Your task to perform on an android device: open app "Truecaller" (install if not already installed) and go to login screen Image 0: 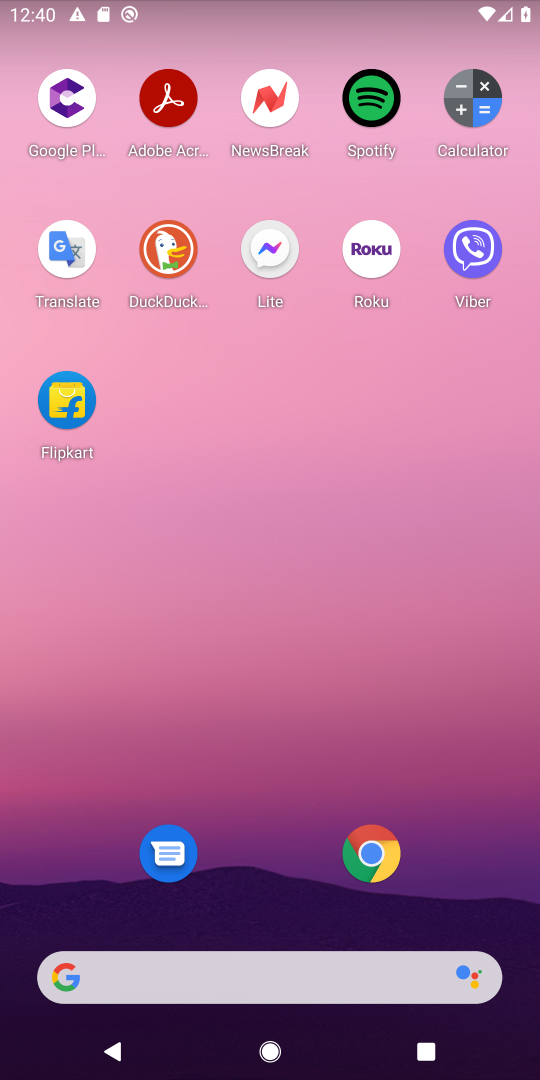
Step 0: drag from (274, 864) to (414, 166)
Your task to perform on an android device: open app "Truecaller" (install if not already installed) and go to login screen Image 1: 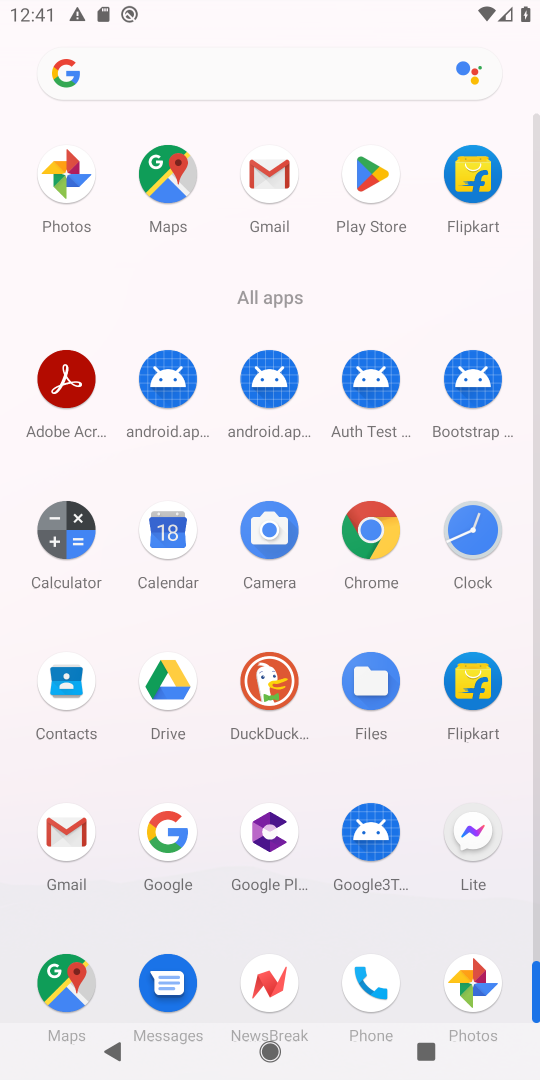
Step 1: click (373, 182)
Your task to perform on an android device: open app "Truecaller" (install if not already installed) and go to login screen Image 2: 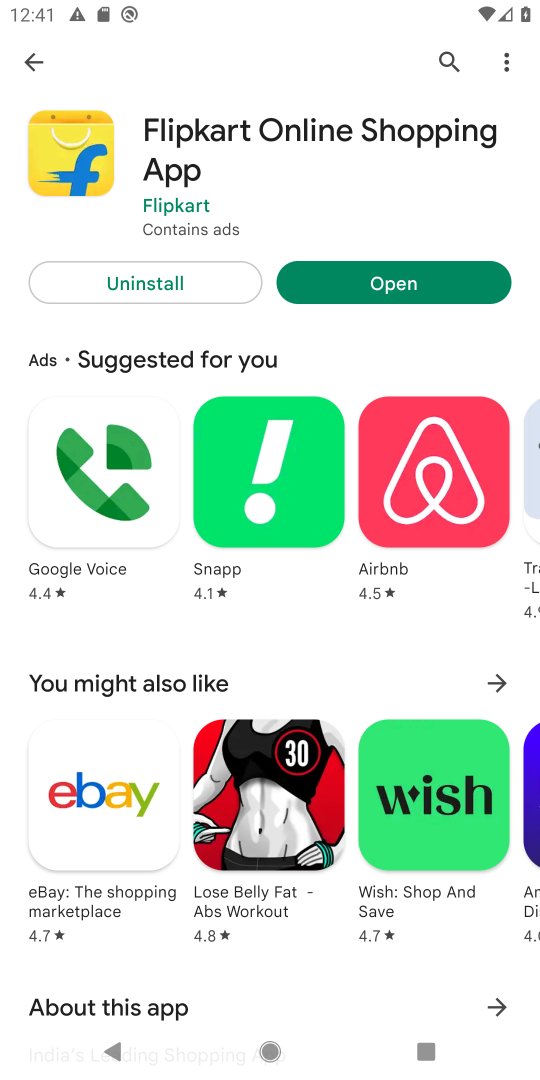
Step 2: click (40, 68)
Your task to perform on an android device: open app "Truecaller" (install if not already installed) and go to login screen Image 3: 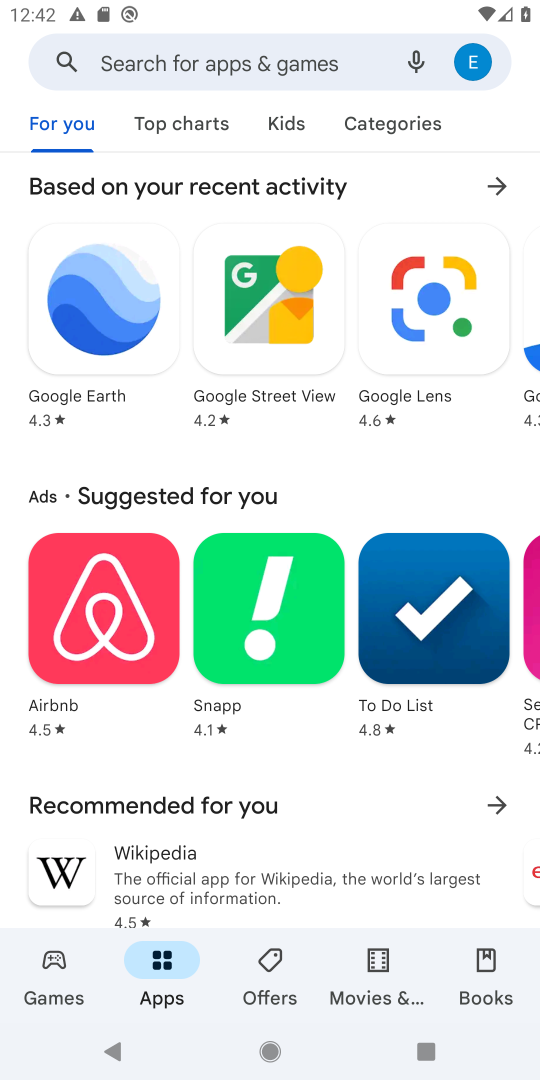
Step 3: click (130, 70)
Your task to perform on an android device: open app "Truecaller" (install if not already installed) and go to login screen Image 4: 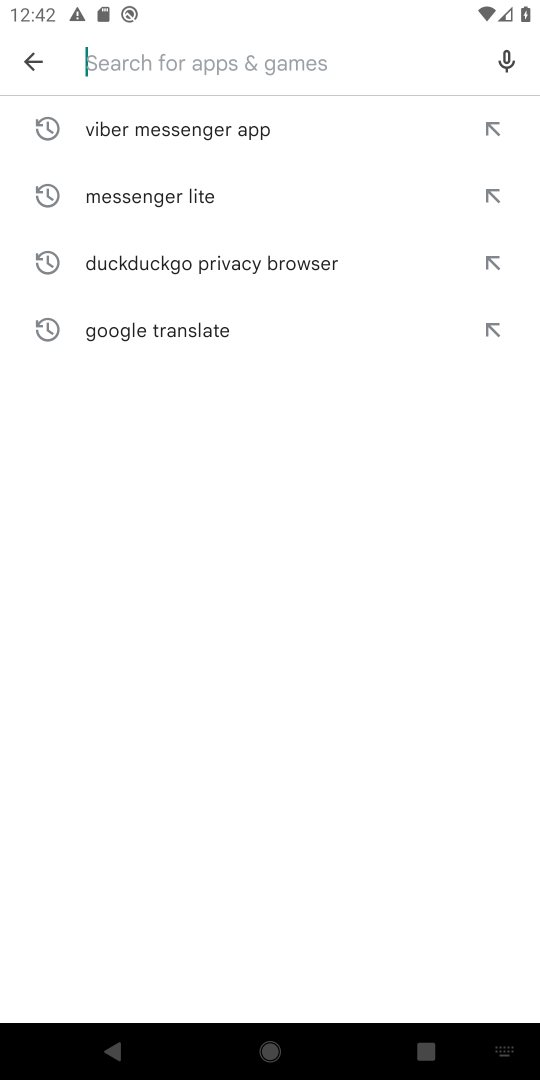
Step 4: type "Truecaller"
Your task to perform on an android device: open app "Truecaller" (install if not already installed) and go to login screen Image 5: 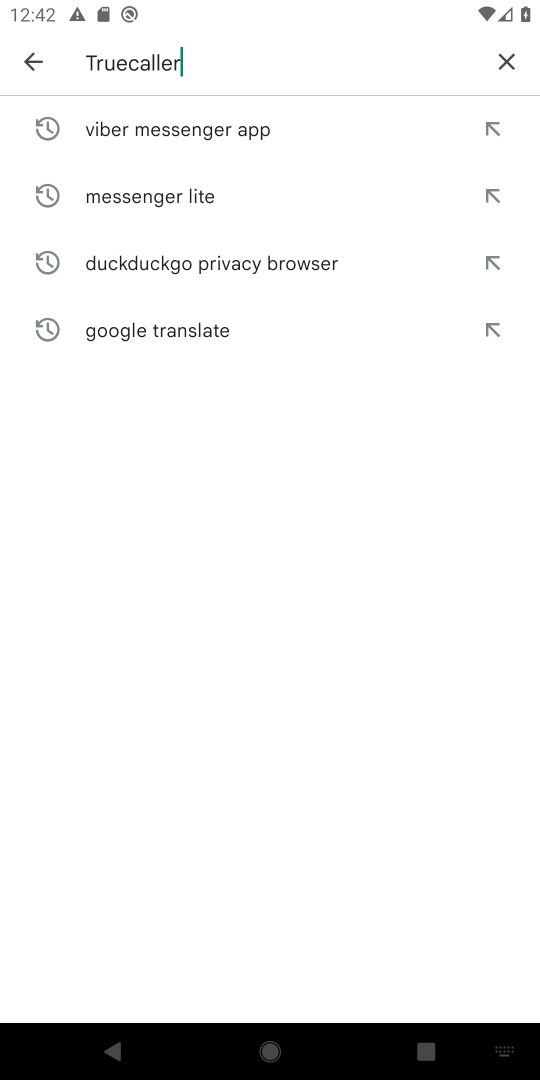
Step 5: type ""
Your task to perform on an android device: open app "Truecaller" (install if not already installed) and go to login screen Image 6: 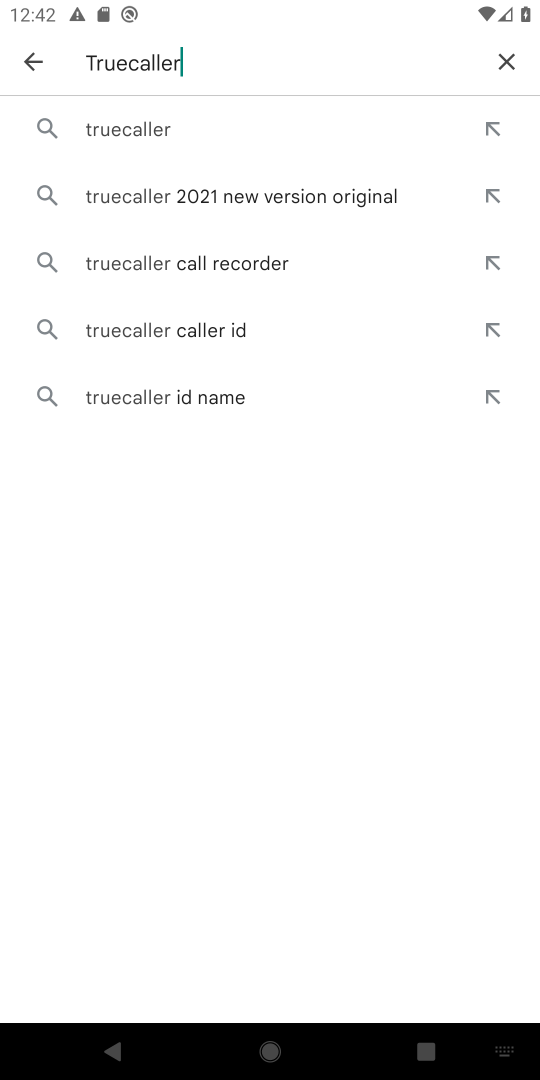
Step 6: click (226, 116)
Your task to perform on an android device: open app "Truecaller" (install if not already installed) and go to login screen Image 7: 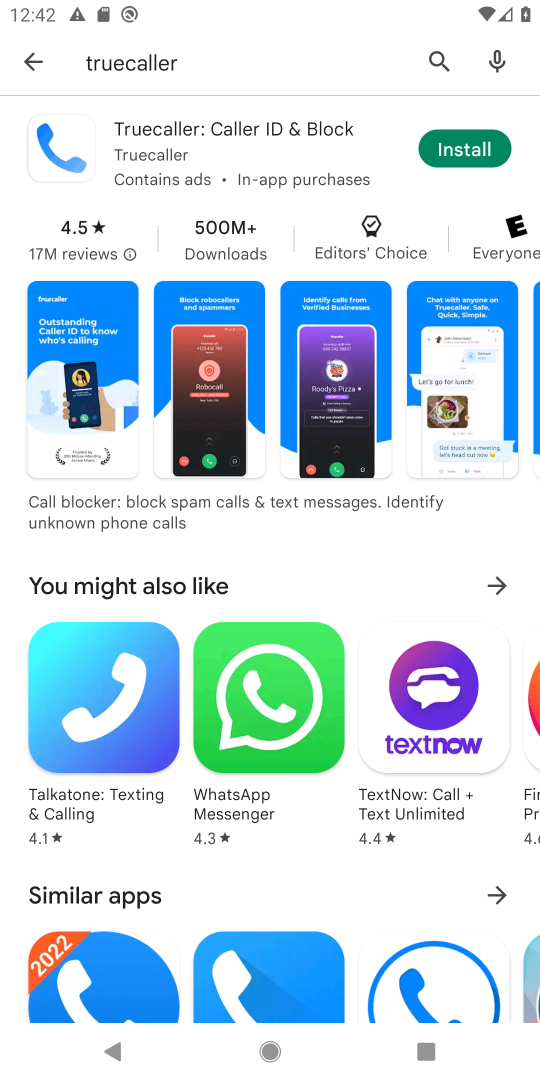
Step 7: click (485, 159)
Your task to perform on an android device: open app "Truecaller" (install if not already installed) and go to login screen Image 8: 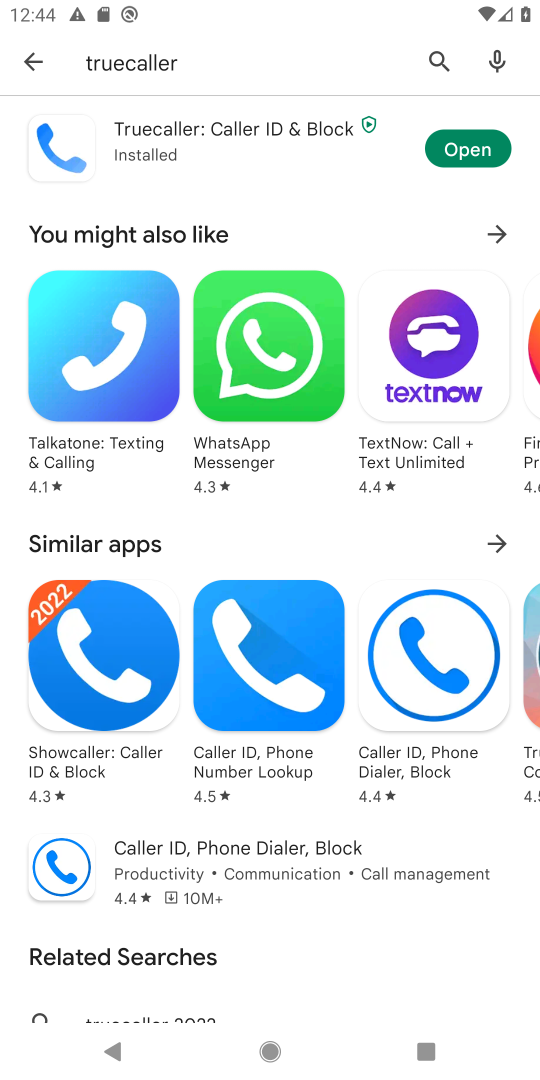
Step 8: click (480, 169)
Your task to perform on an android device: open app "Truecaller" (install if not already installed) and go to login screen Image 9: 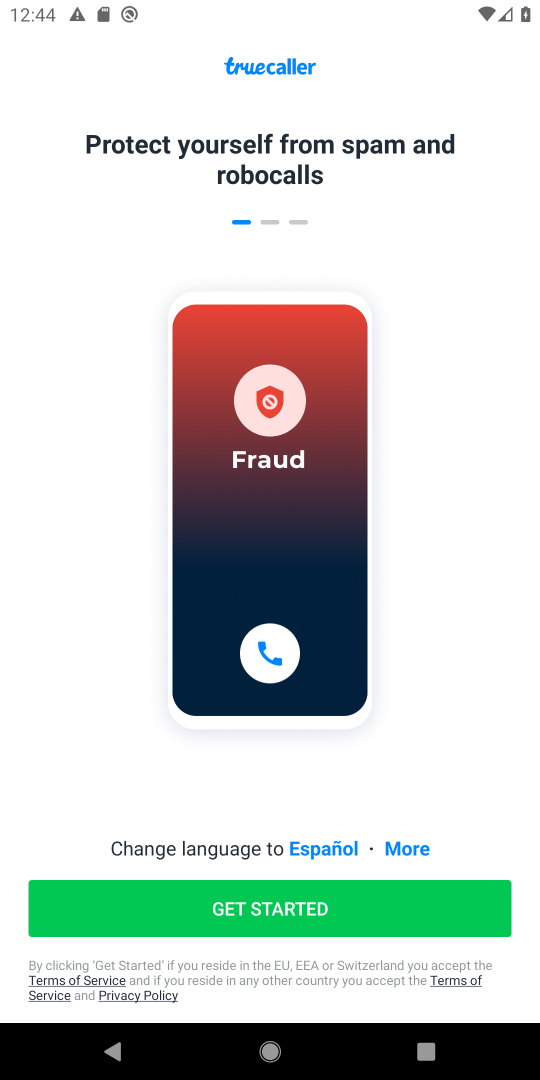
Step 9: task complete